Your task to perform on an android device: set the timer Image 0: 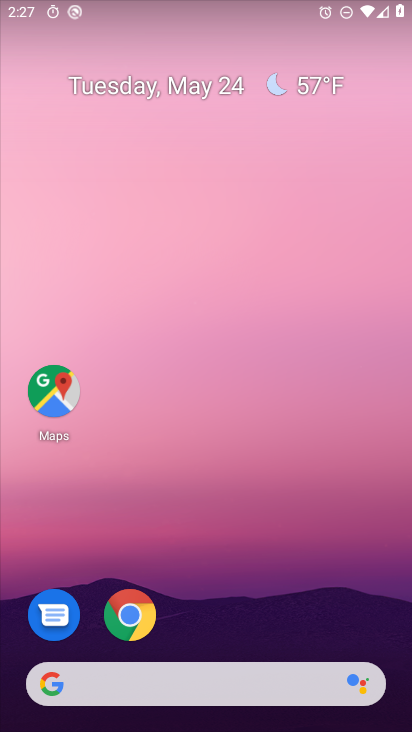
Step 0: drag from (205, 643) to (188, 212)
Your task to perform on an android device: set the timer Image 1: 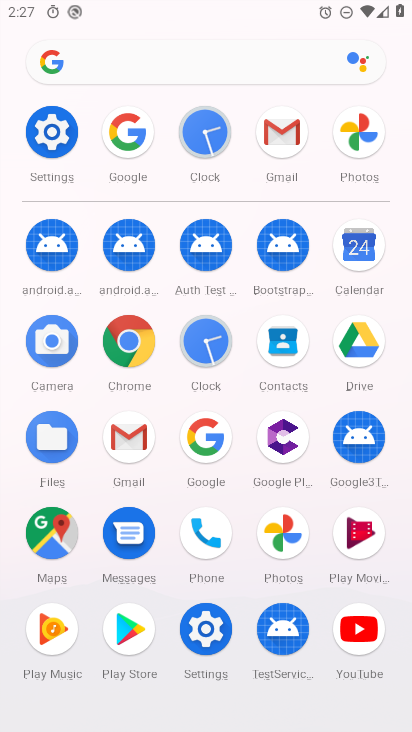
Step 1: click (190, 351)
Your task to perform on an android device: set the timer Image 2: 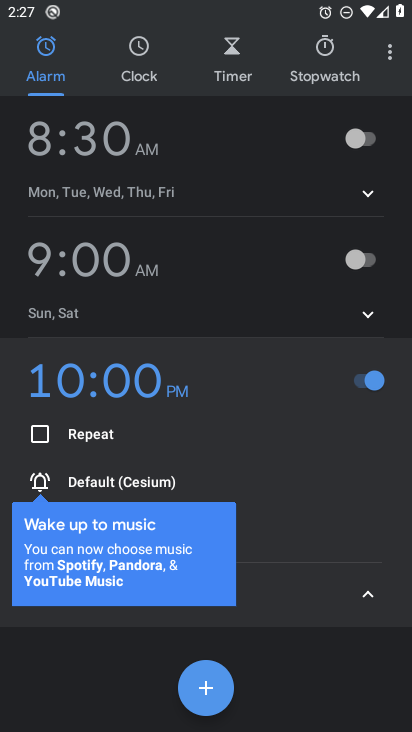
Step 2: click (231, 65)
Your task to perform on an android device: set the timer Image 3: 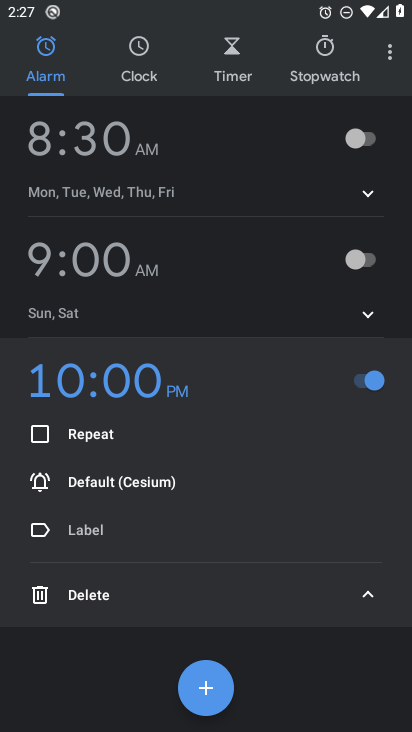
Step 3: click (237, 68)
Your task to perform on an android device: set the timer Image 4: 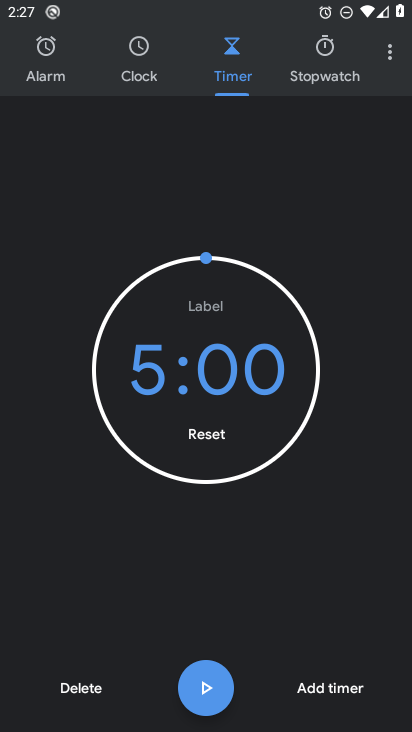
Step 4: click (199, 699)
Your task to perform on an android device: set the timer Image 5: 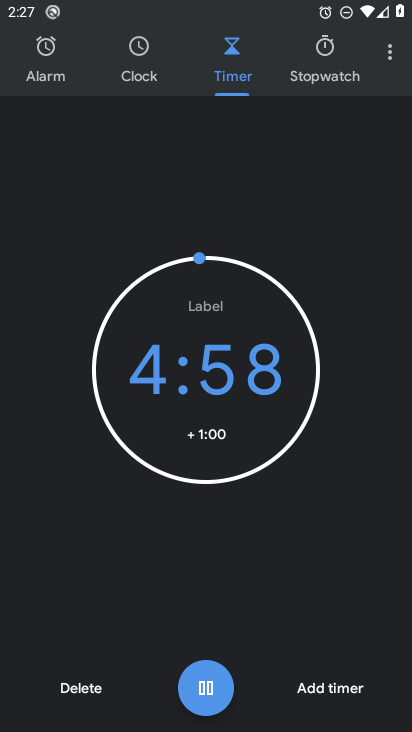
Step 5: task complete